Your task to perform on an android device: Open Google Chrome and click the shortcut for Amazon.com Image 0: 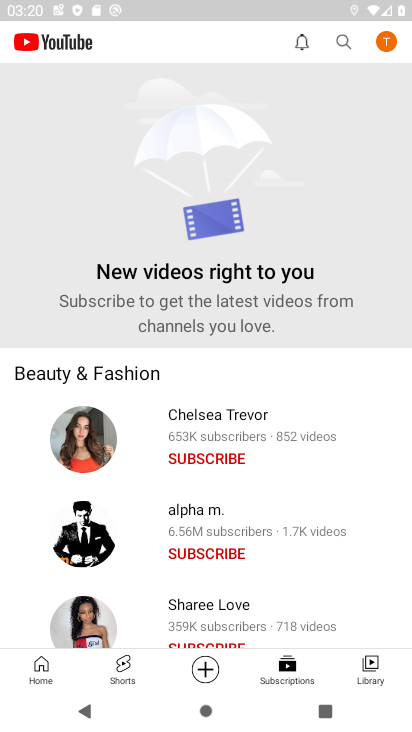
Step 0: press home button
Your task to perform on an android device: Open Google Chrome and click the shortcut for Amazon.com Image 1: 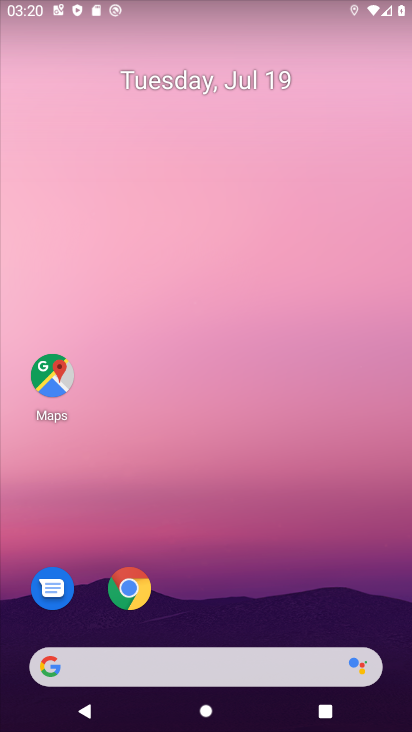
Step 1: click (130, 582)
Your task to perform on an android device: Open Google Chrome and click the shortcut for Amazon.com Image 2: 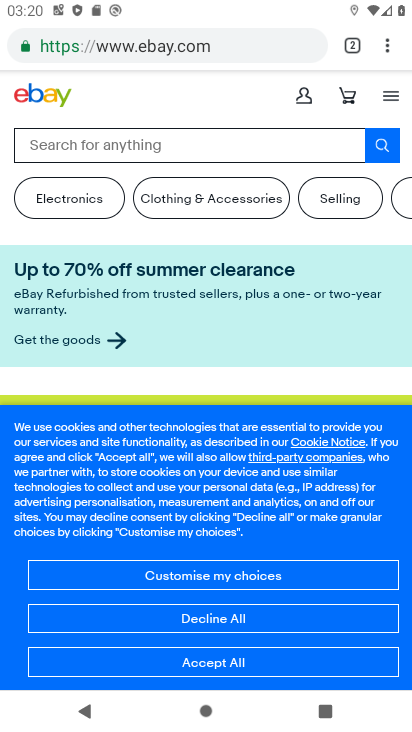
Step 2: click (387, 45)
Your task to perform on an android device: Open Google Chrome and click the shortcut for Amazon.com Image 3: 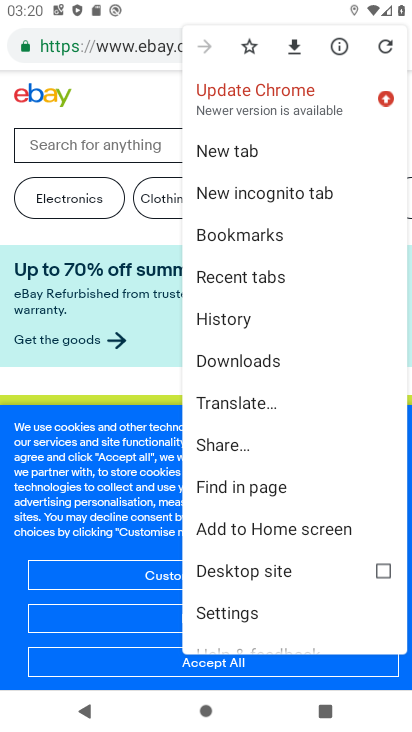
Step 3: click (235, 146)
Your task to perform on an android device: Open Google Chrome and click the shortcut for Amazon.com Image 4: 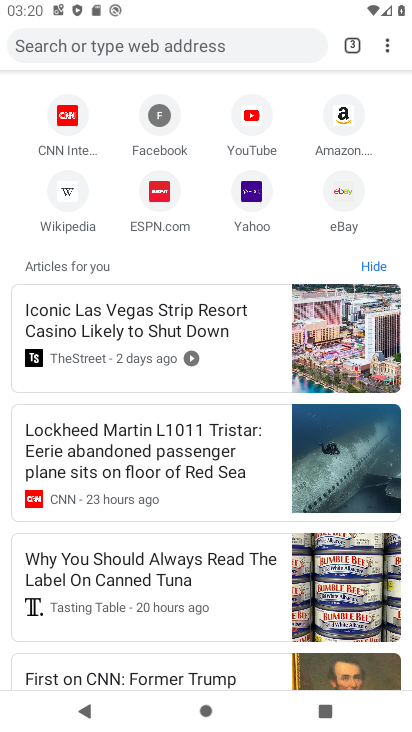
Step 4: click (341, 114)
Your task to perform on an android device: Open Google Chrome and click the shortcut for Amazon.com Image 5: 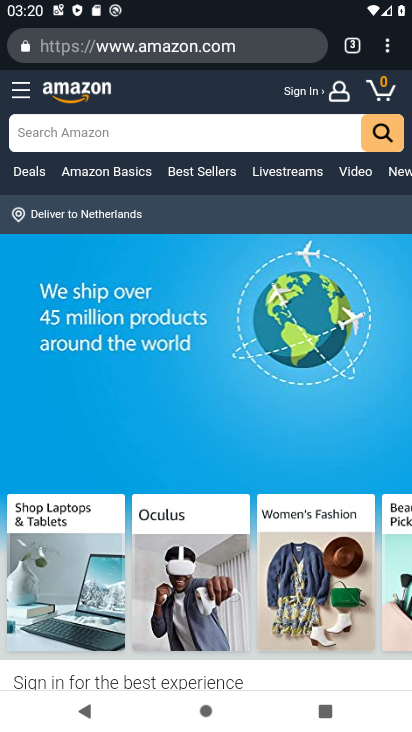
Step 5: task complete